Your task to perform on an android device: Open the stopwatch Image 0: 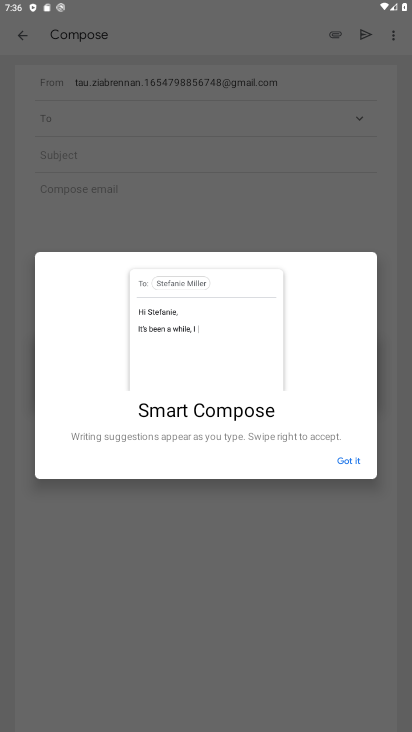
Step 0: press home button
Your task to perform on an android device: Open the stopwatch Image 1: 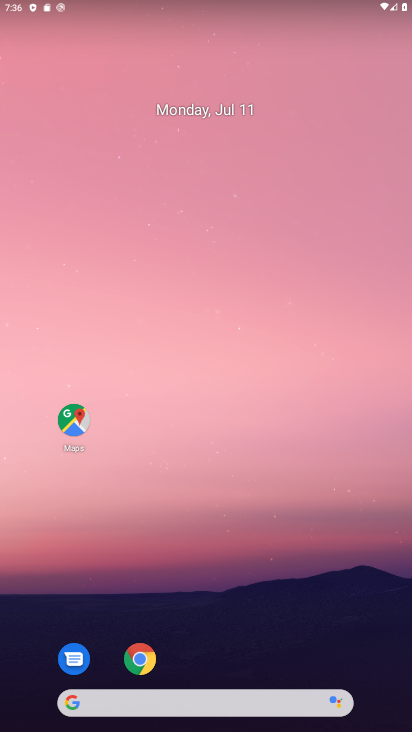
Step 1: drag from (257, 615) to (268, 5)
Your task to perform on an android device: Open the stopwatch Image 2: 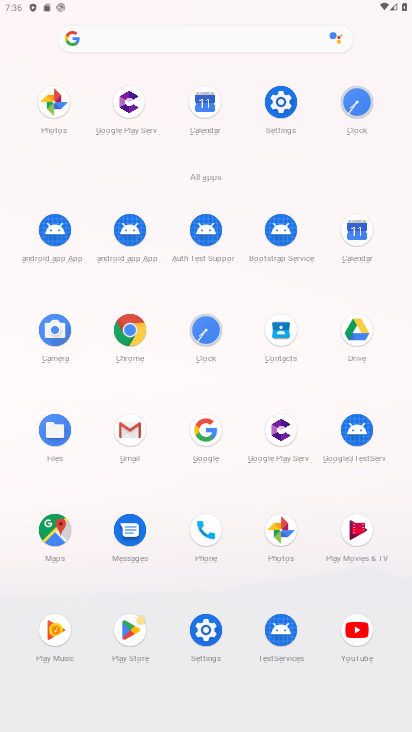
Step 2: click (209, 337)
Your task to perform on an android device: Open the stopwatch Image 3: 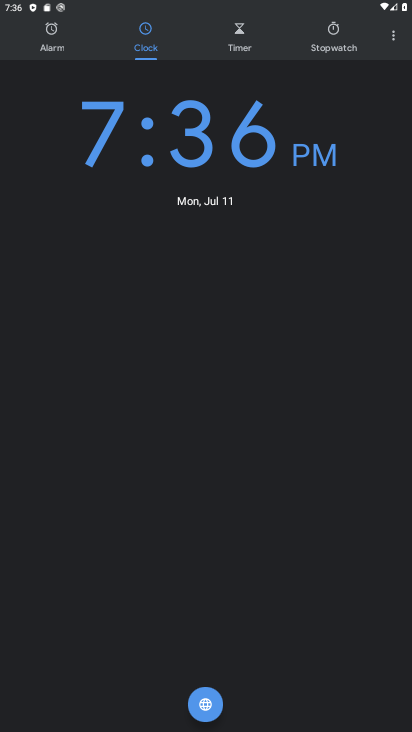
Step 3: click (334, 47)
Your task to perform on an android device: Open the stopwatch Image 4: 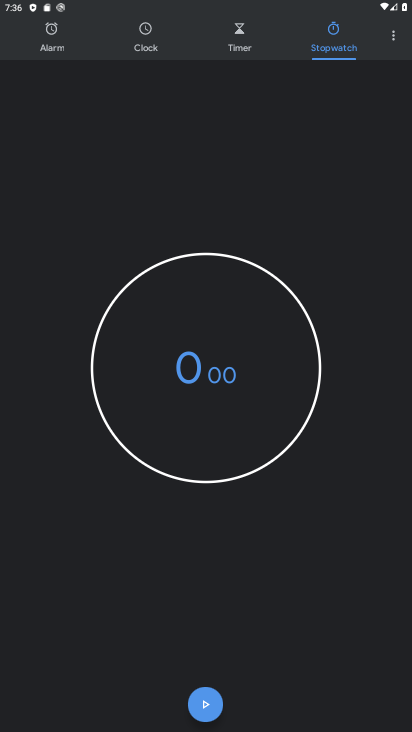
Step 4: click (210, 700)
Your task to perform on an android device: Open the stopwatch Image 5: 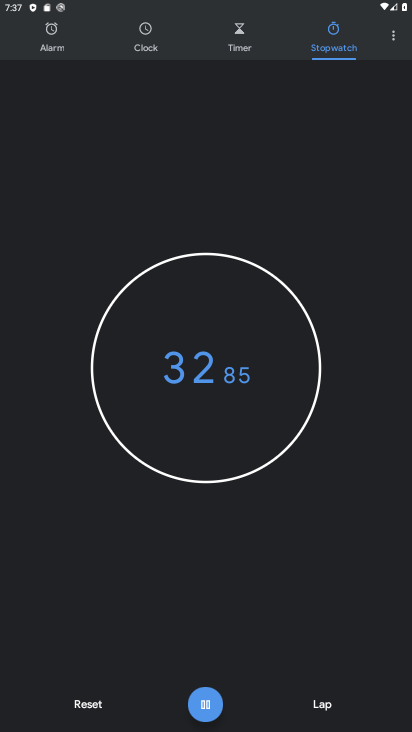
Step 5: task complete